Your task to perform on an android device: Open privacy settings Image 0: 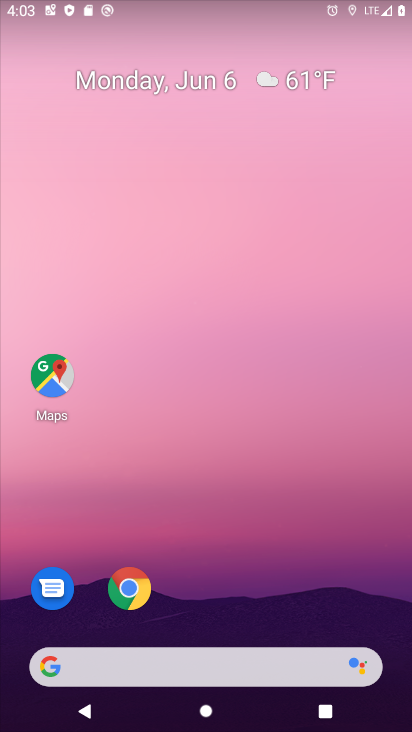
Step 0: drag from (235, 634) to (194, 235)
Your task to perform on an android device: Open privacy settings Image 1: 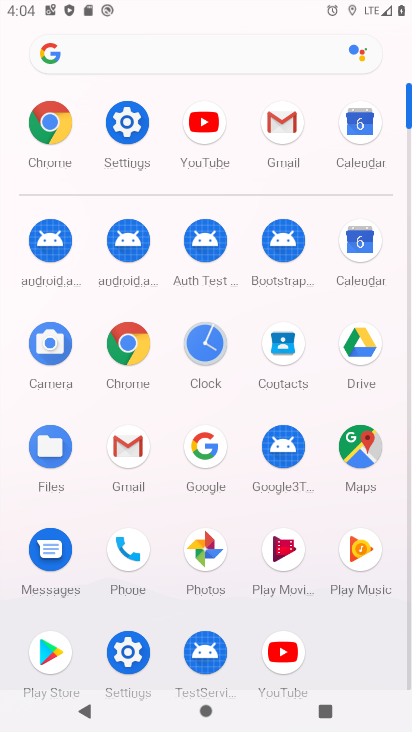
Step 1: click (141, 654)
Your task to perform on an android device: Open privacy settings Image 2: 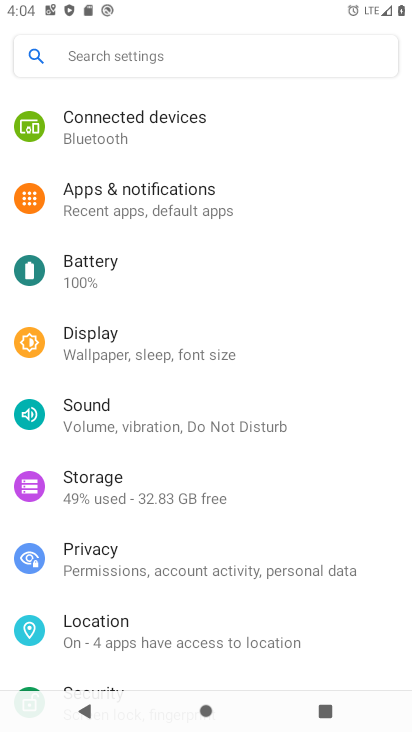
Step 2: click (187, 577)
Your task to perform on an android device: Open privacy settings Image 3: 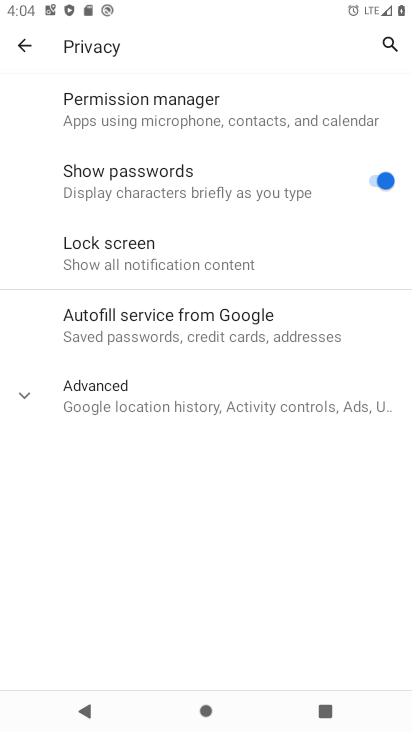
Step 3: task complete